Your task to perform on an android device: open a new tab in the chrome app Image 0: 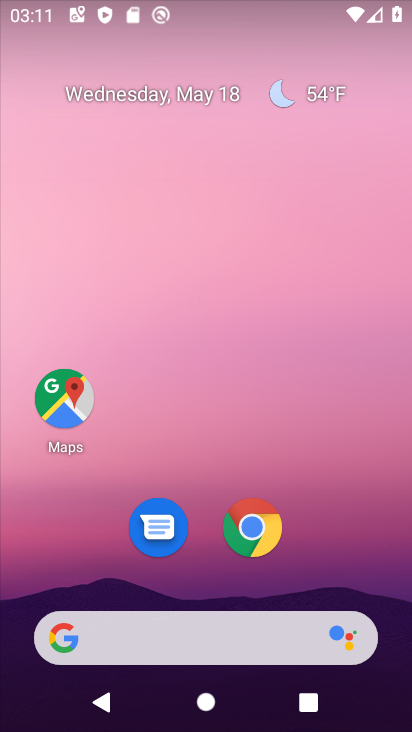
Step 0: drag from (226, 597) to (202, 128)
Your task to perform on an android device: open a new tab in the chrome app Image 1: 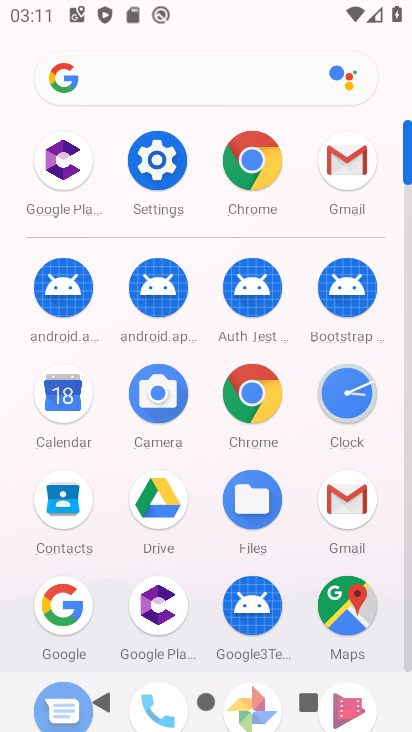
Step 1: click (257, 398)
Your task to perform on an android device: open a new tab in the chrome app Image 2: 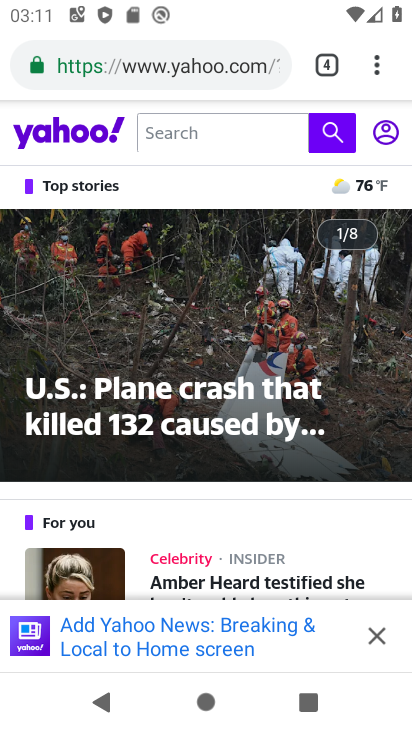
Step 2: click (367, 76)
Your task to perform on an android device: open a new tab in the chrome app Image 3: 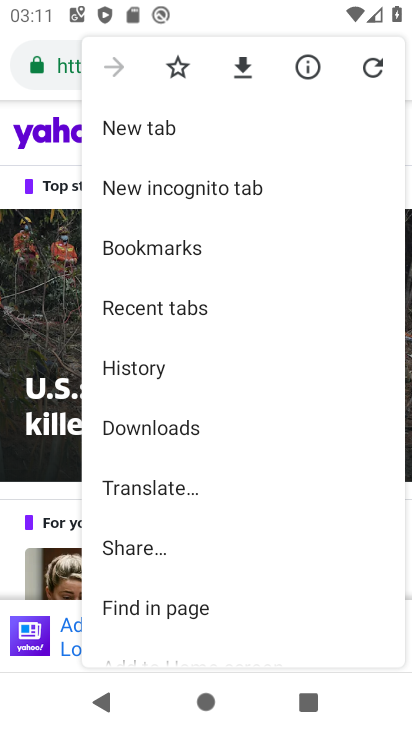
Step 3: drag from (184, 555) to (188, 111)
Your task to perform on an android device: open a new tab in the chrome app Image 4: 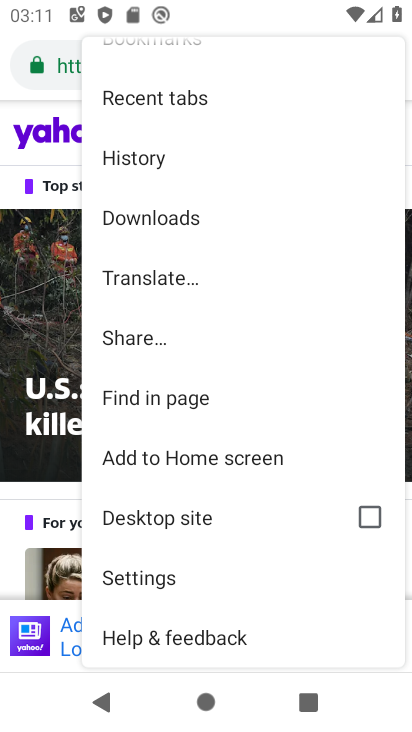
Step 4: drag from (189, 140) to (166, 617)
Your task to perform on an android device: open a new tab in the chrome app Image 5: 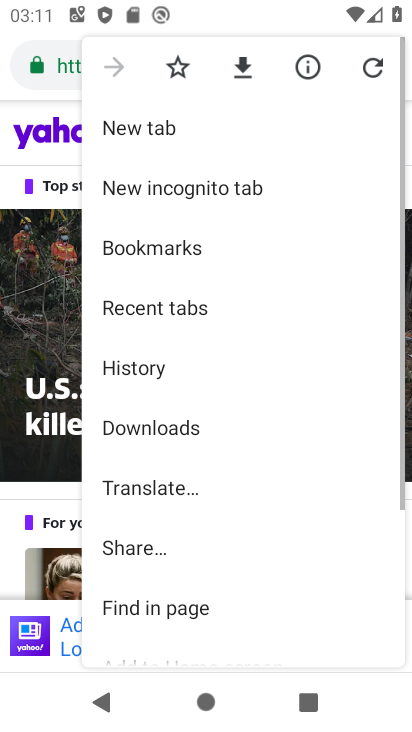
Step 5: click (167, 134)
Your task to perform on an android device: open a new tab in the chrome app Image 6: 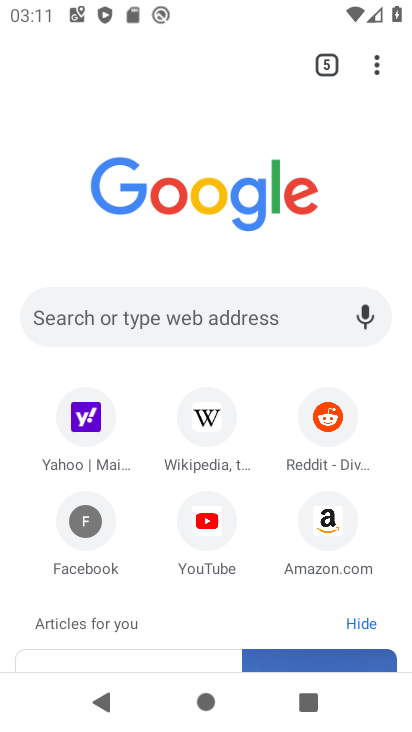
Step 6: task complete